Your task to perform on an android device: Open the web browser Image 0: 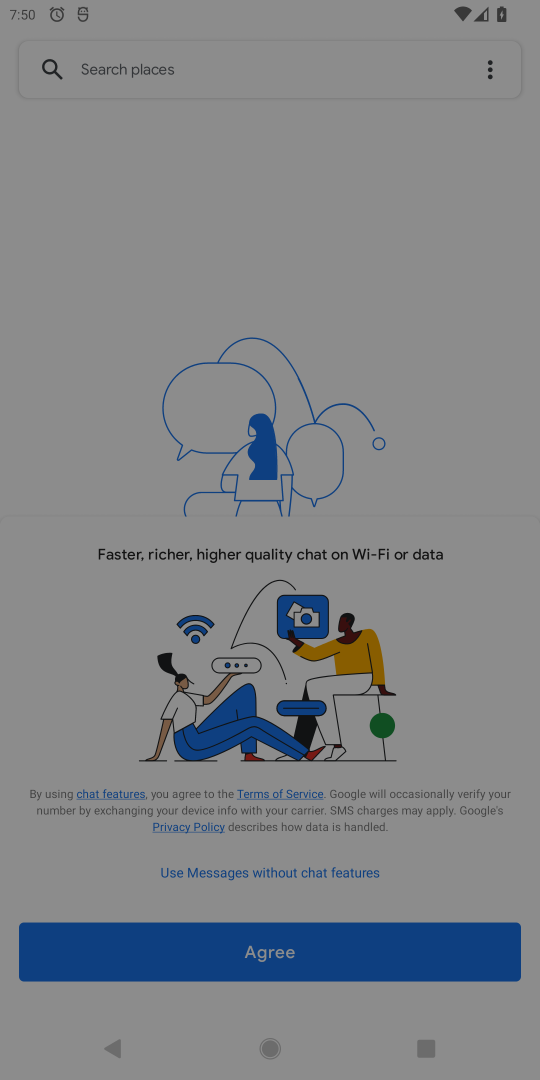
Step 0: press home button
Your task to perform on an android device: Open the web browser Image 1: 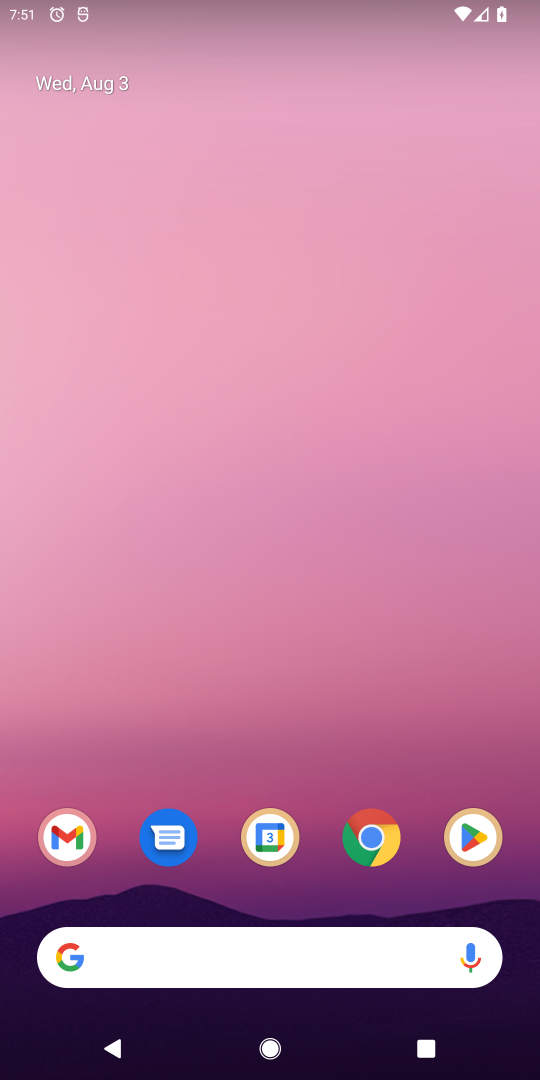
Step 1: click (85, 946)
Your task to perform on an android device: Open the web browser Image 2: 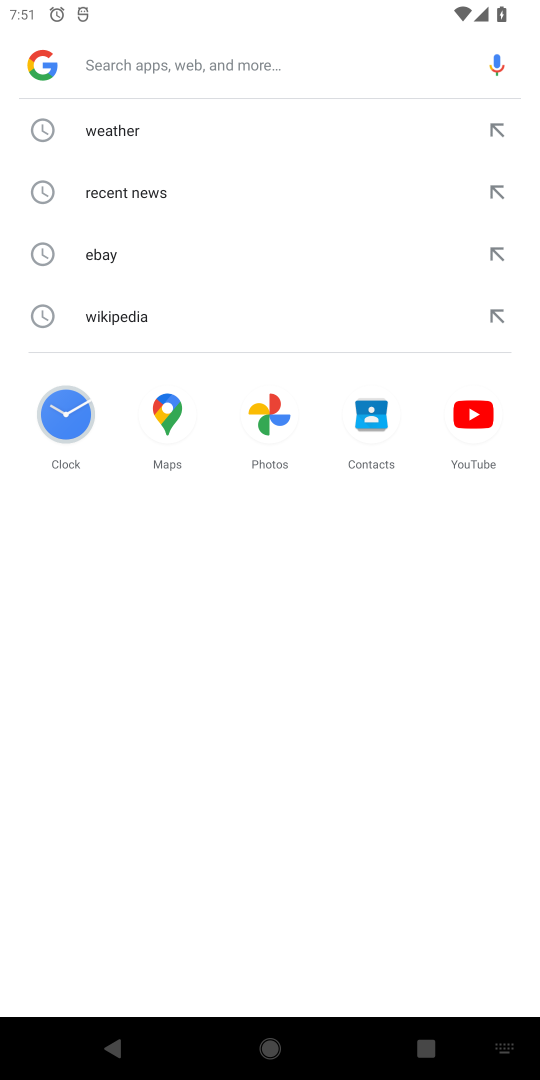
Step 2: task complete